Your task to perform on an android device: Open Youtube and go to the subscriptions tab Image 0: 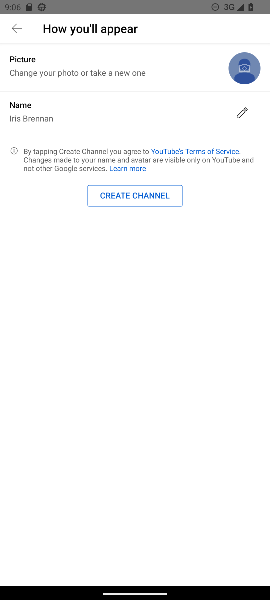
Step 0: press home button
Your task to perform on an android device: Open Youtube and go to the subscriptions tab Image 1: 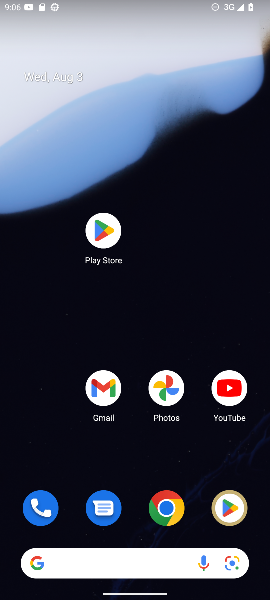
Step 1: drag from (145, 543) to (128, 65)
Your task to perform on an android device: Open Youtube and go to the subscriptions tab Image 2: 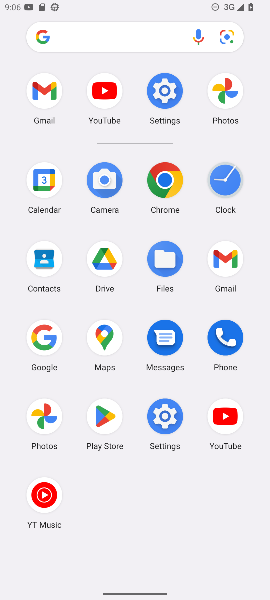
Step 2: click (223, 432)
Your task to perform on an android device: Open Youtube and go to the subscriptions tab Image 3: 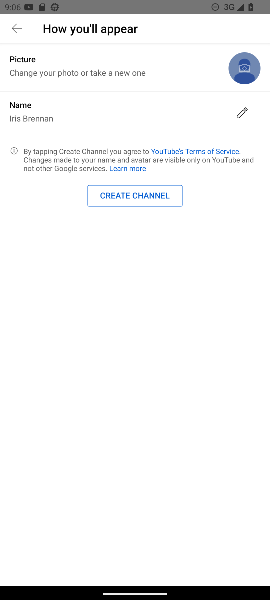
Step 3: click (10, 31)
Your task to perform on an android device: Open Youtube and go to the subscriptions tab Image 4: 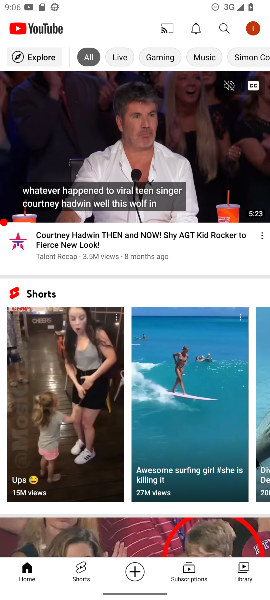
Step 4: click (191, 577)
Your task to perform on an android device: Open Youtube and go to the subscriptions tab Image 5: 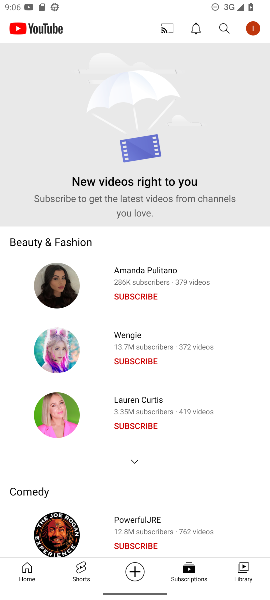
Step 5: task complete